Your task to perform on an android device: Find coffee shops on Maps Image 0: 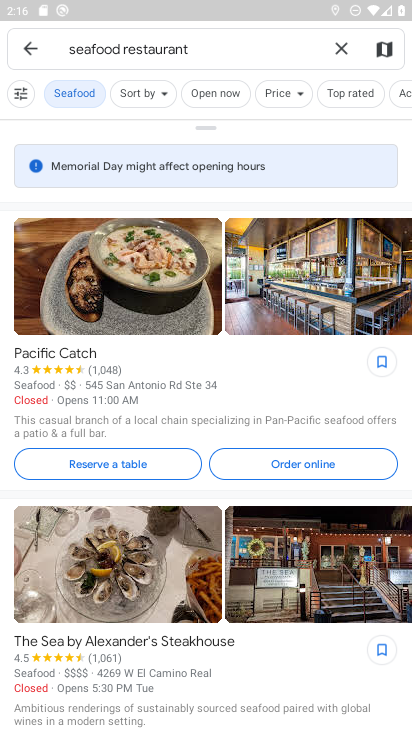
Step 0: click (338, 49)
Your task to perform on an android device: Find coffee shops on Maps Image 1: 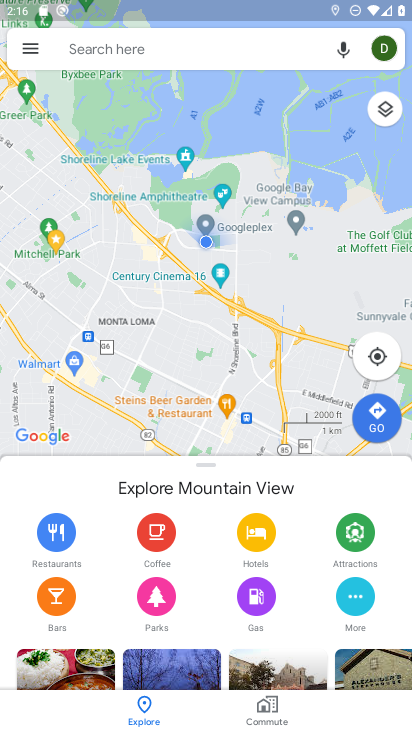
Step 1: click (164, 48)
Your task to perform on an android device: Find coffee shops on Maps Image 2: 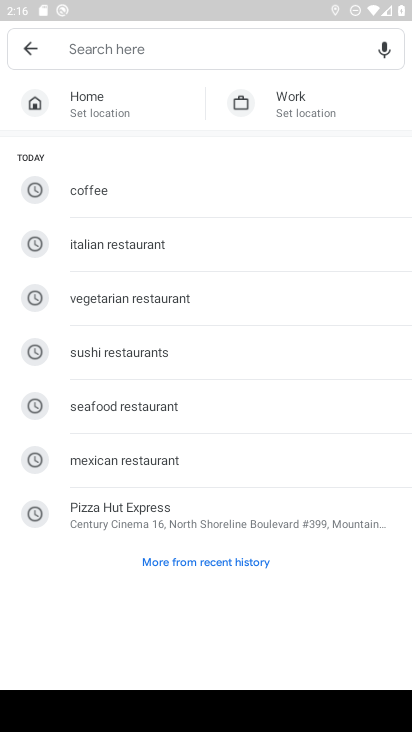
Step 2: click (136, 190)
Your task to perform on an android device: Find coffee shops on Maps Image 3: 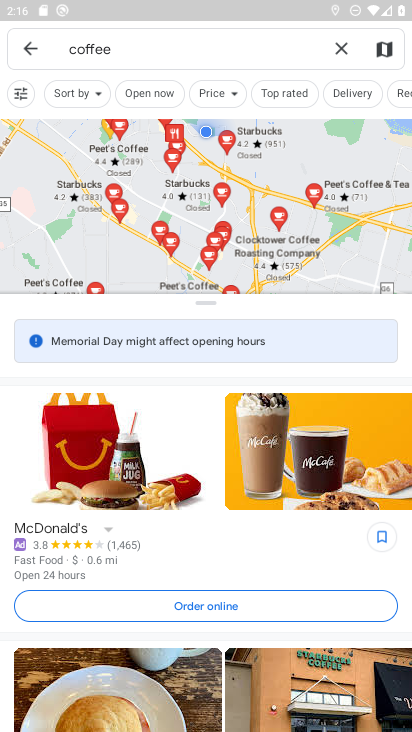
Step 3: task complete